Your task to perform on an android device: Clear the shopping cart on ebay.com. Search for "alienware aurora" on ebay.com, select the first entry, and add it to the cart. Image 0: 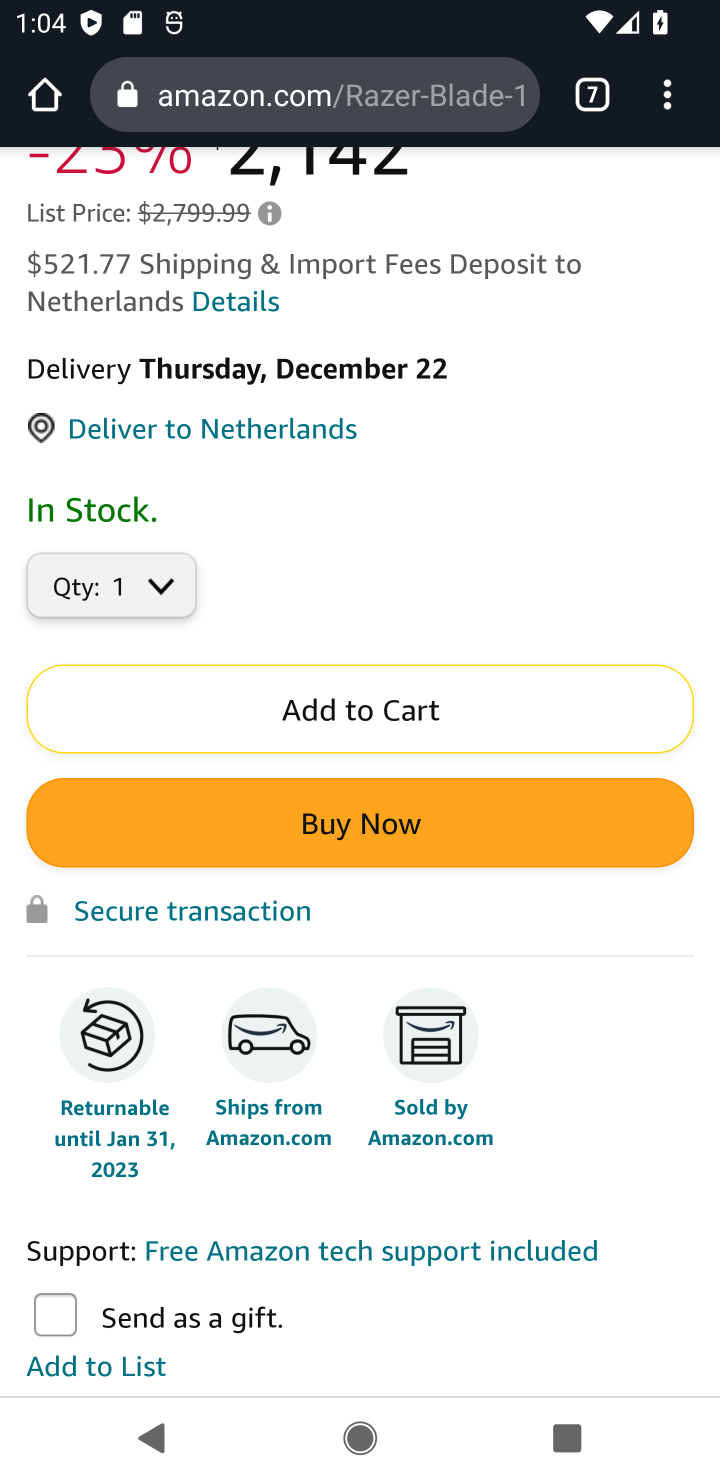
Step 0: press home button
Your task to perform on an android device: Clear the shopping cart on ebay.com. Search for "alienware aurora" on ebay.com, select the first entry, and add it to the cart. Image 1: 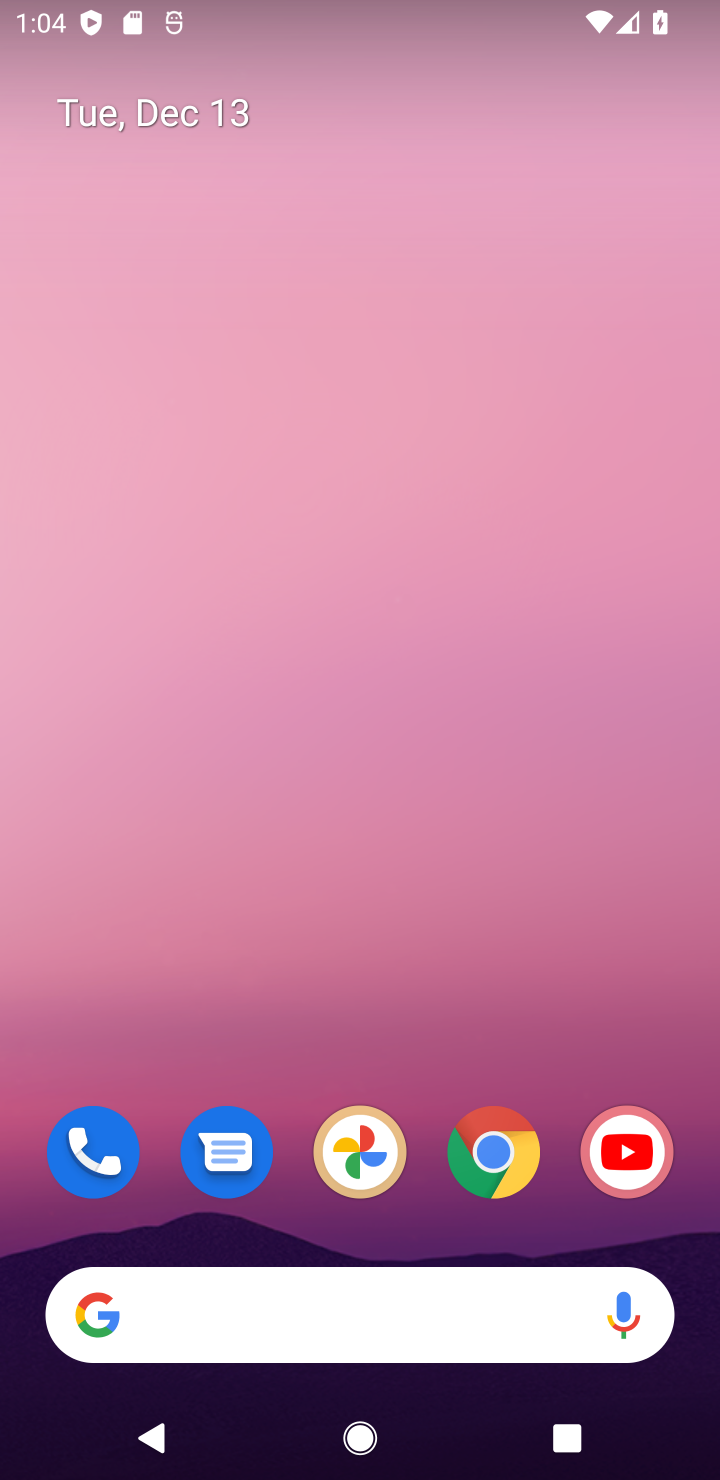
Step 1: drag from (293, 1316) to (356, 98)
Your task to perform on an android device: Clear the shopping cart on ebay.com. Search for "alienware aurora" on ebay.com, select the first entry, and add it to the cart. Image 2: 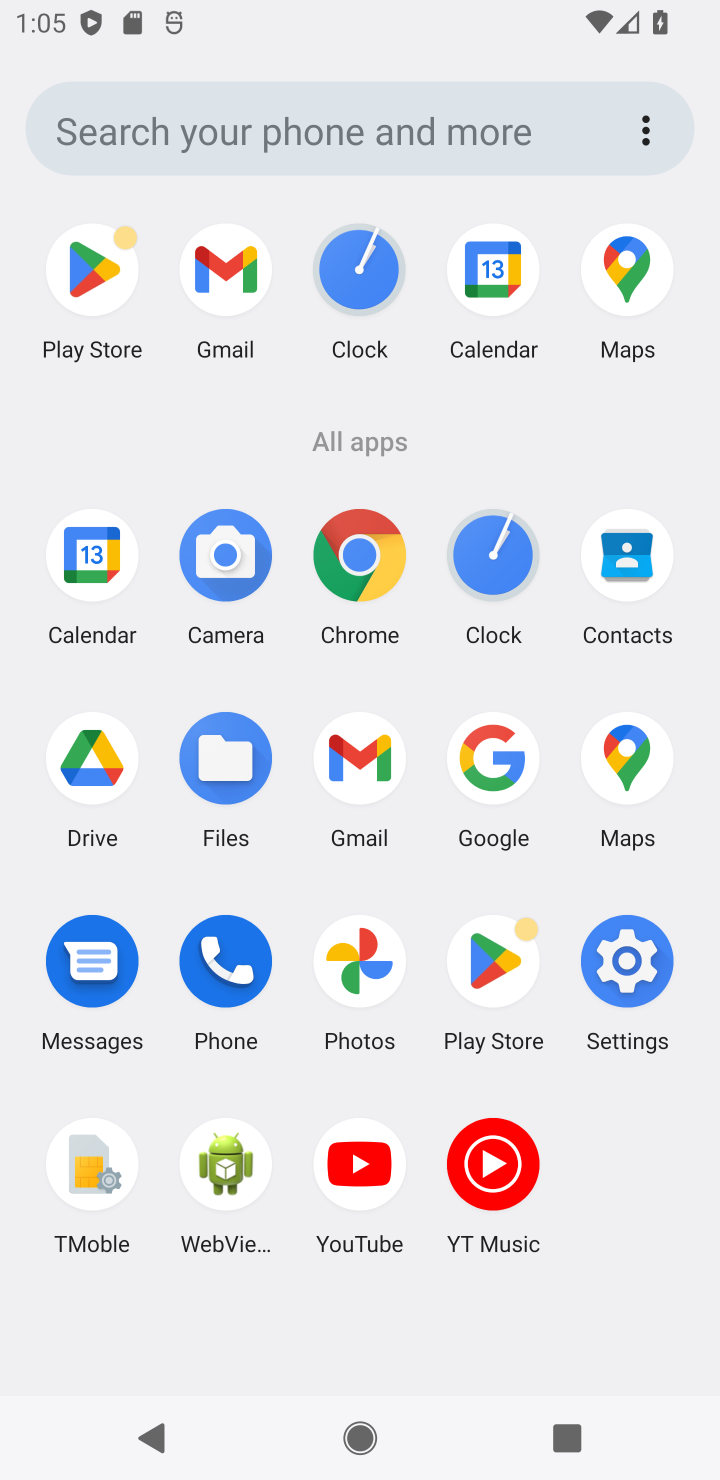
Step 2: click (484, 775)
Your task to perform on an android device: Clear the shopping cart on ebay.com. Search for "alienware aurora" on ebay.com, select the first entry, and add it to the cart. Image 3: 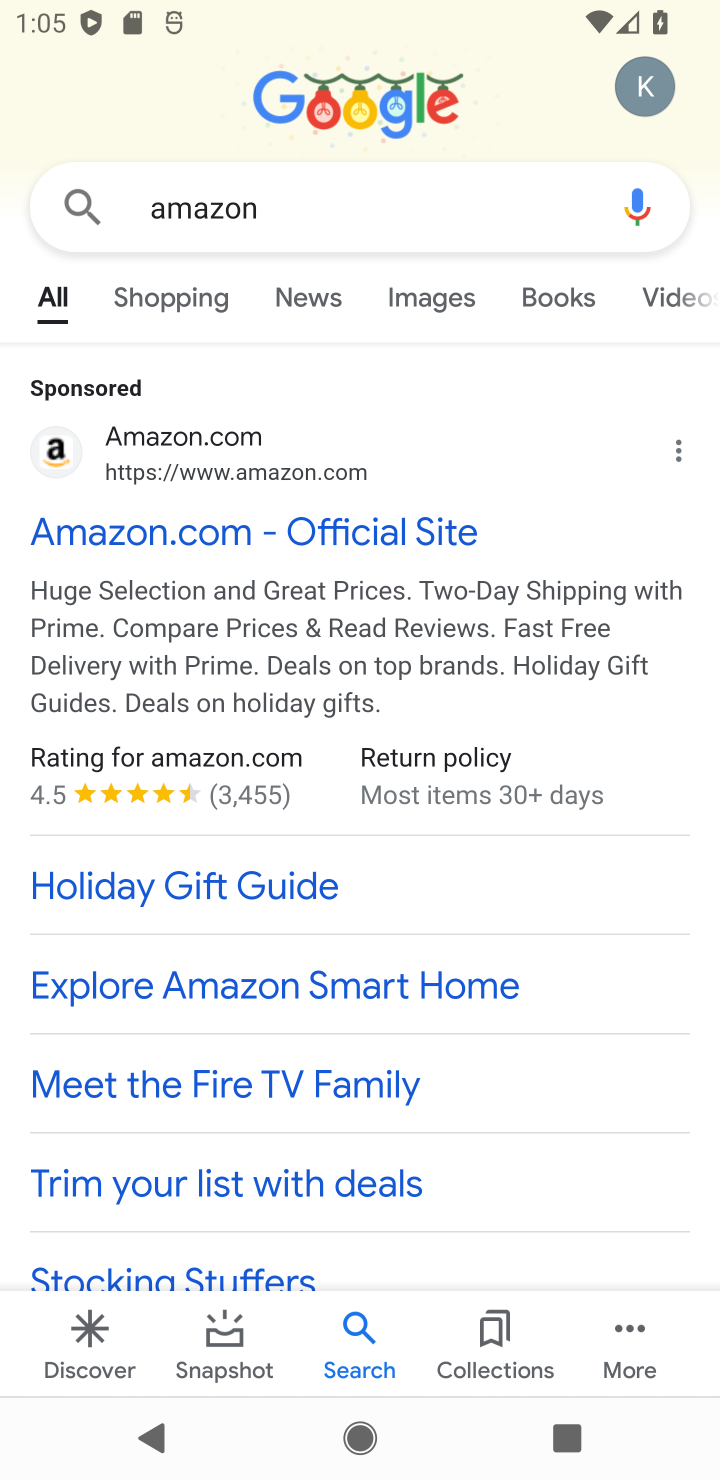
Step 3: click (197, 222)
Your task to perform on an android device: Clear the shopping cart on ebay.com. Search for "alienware aurora" on ebay.com, select the first entry, and add it to the cart. Image 4: 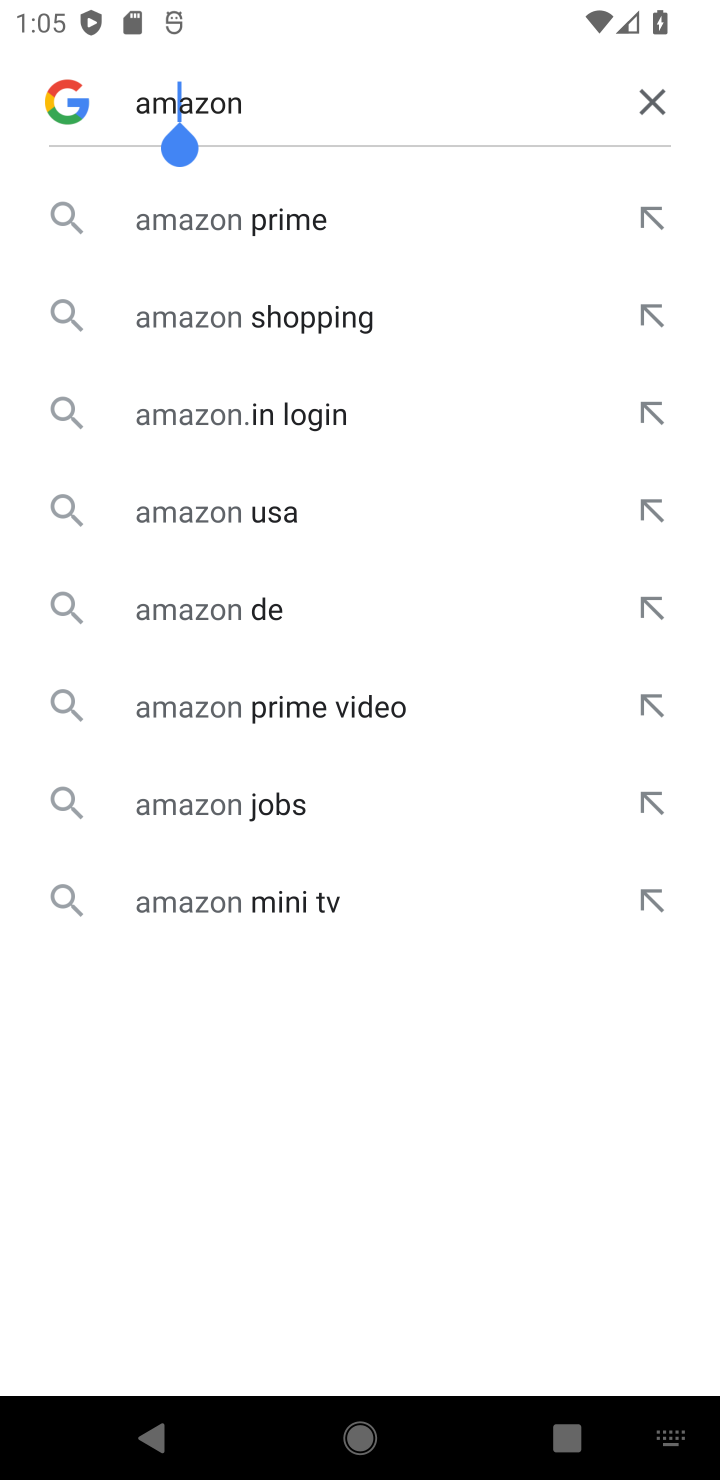
Step 4: click (660, 103)
Your task to perform on an android device: Clear the shopping cart on ebay.com. Search for "alienware aurora" on ebay.com, select the first entry, and add it to the cart. Image 5: 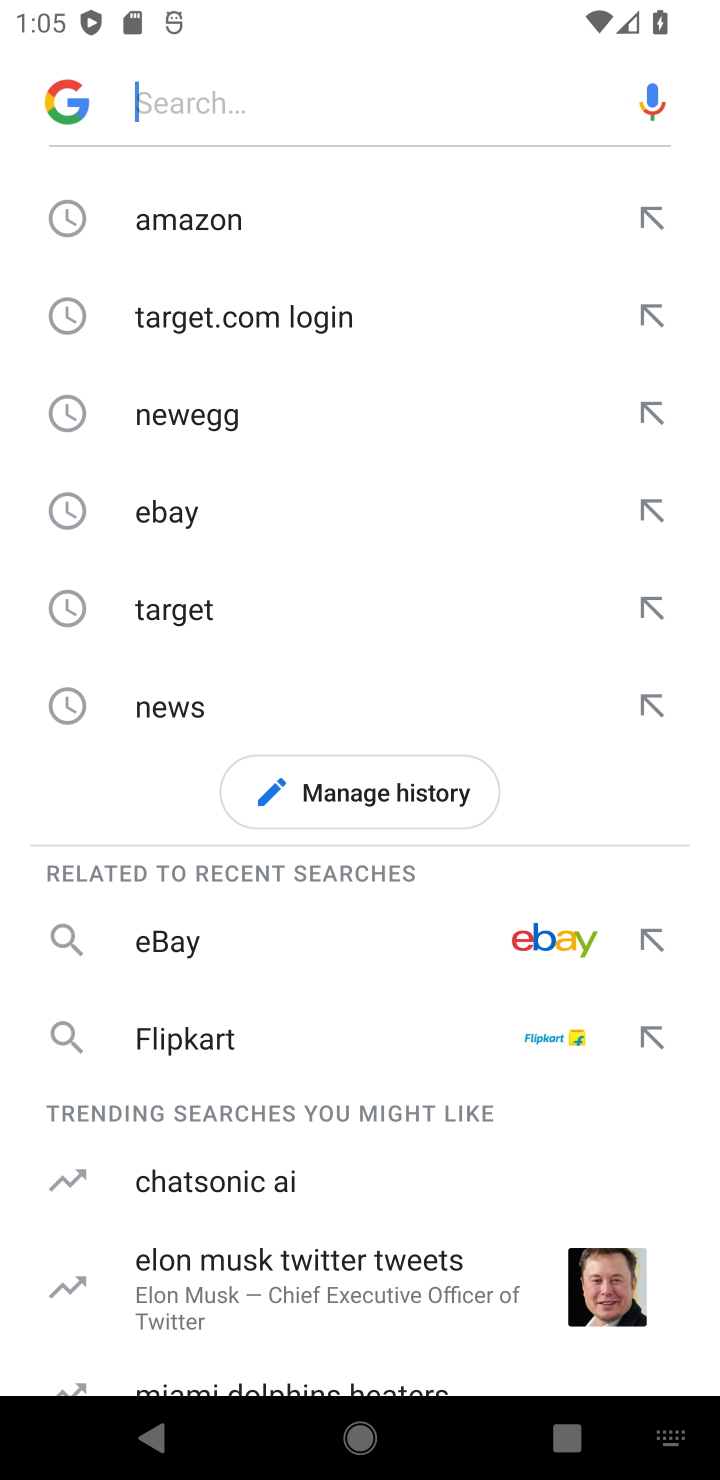
Step 5: click (160, 503)
Your task to perform on an android device: Clear the shopping cart on ebay.com. Search for "alienware aurora" on ebay.com, select the first entry, and add it to the cart. Image 6: 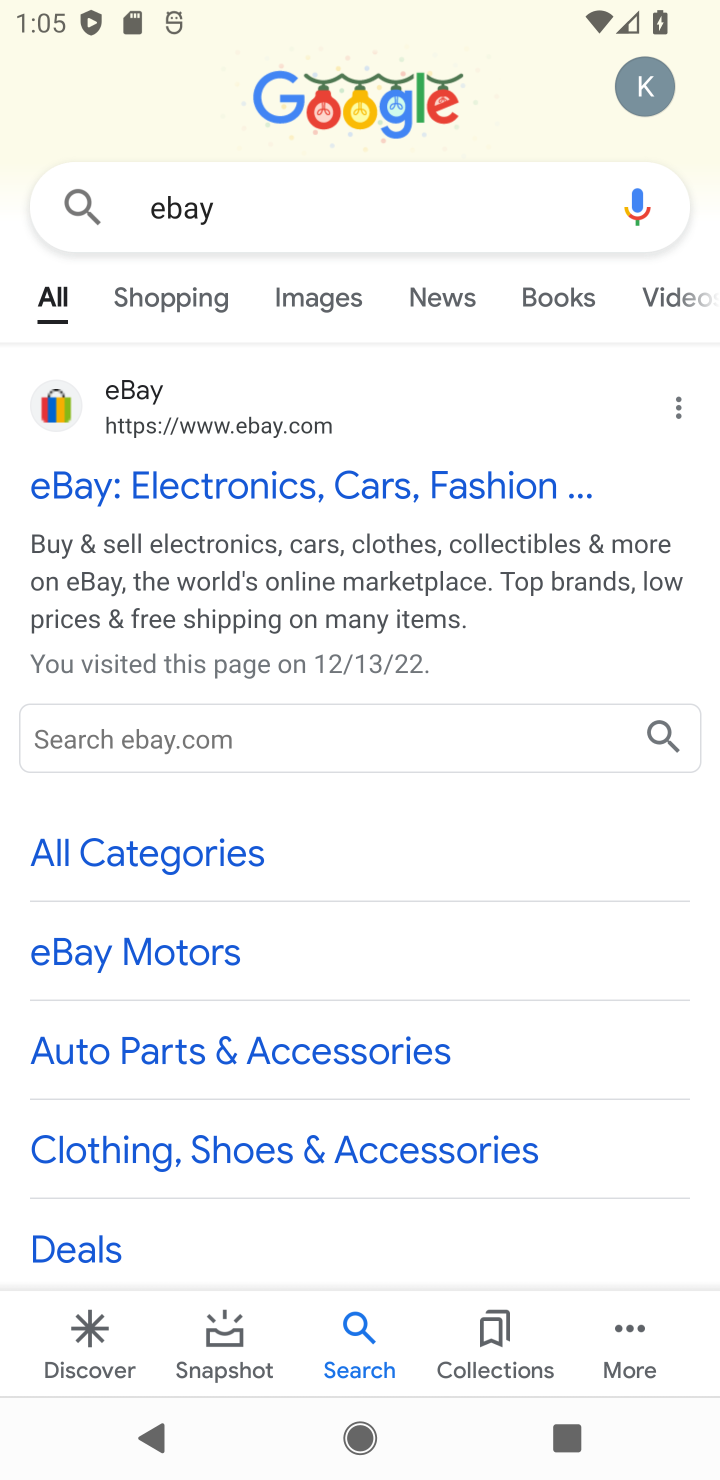
Step 6: click (194, 489)
Your task to perform on an android device: Clear the shopping cart on ebay.com. Search for "alienware aurora" on ebay.com, select the first entry, and add it to the cart. Image 7: 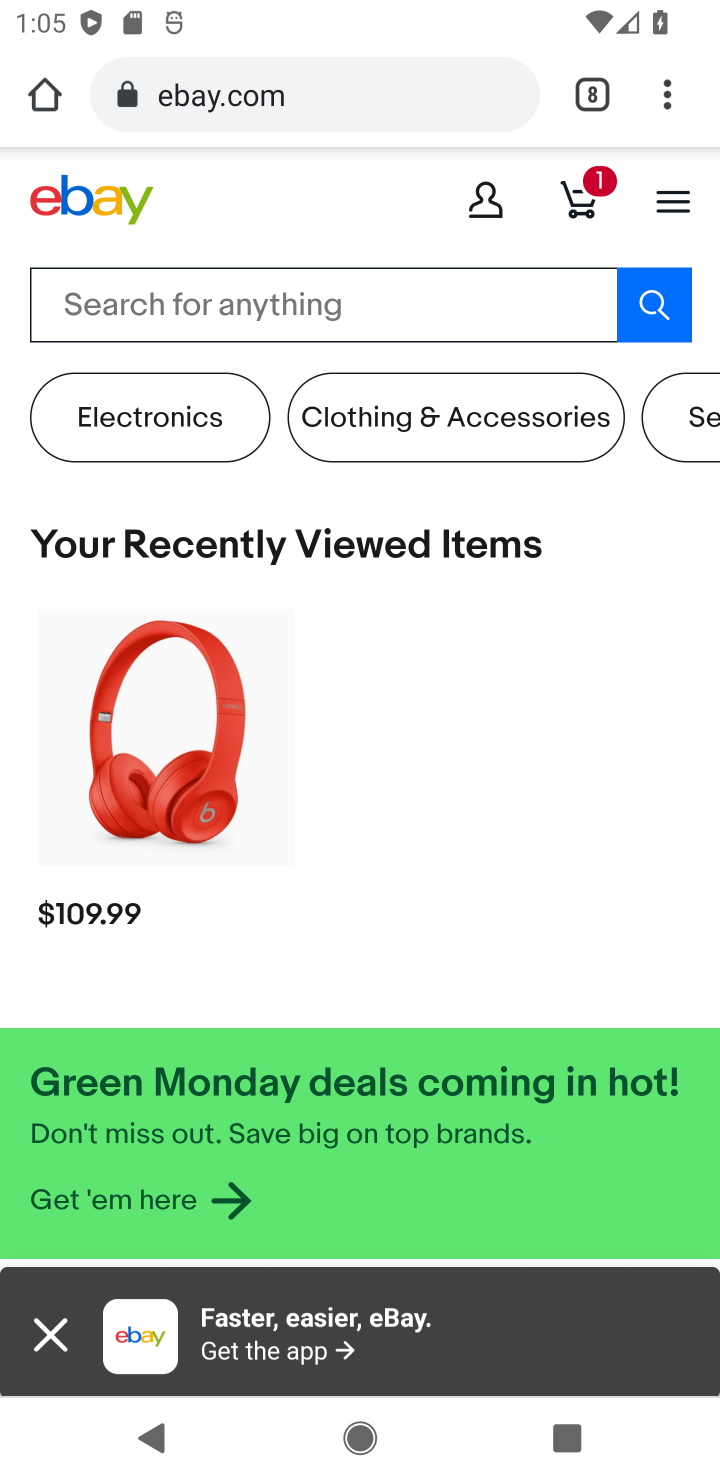
Step 7: click (307, 296)
Your task to perform on an android device: Clear the shopping cart on ebay.com. Search for "alienware aurora" on ebay.com, select the first entry, and add it to the cart. Image 8: 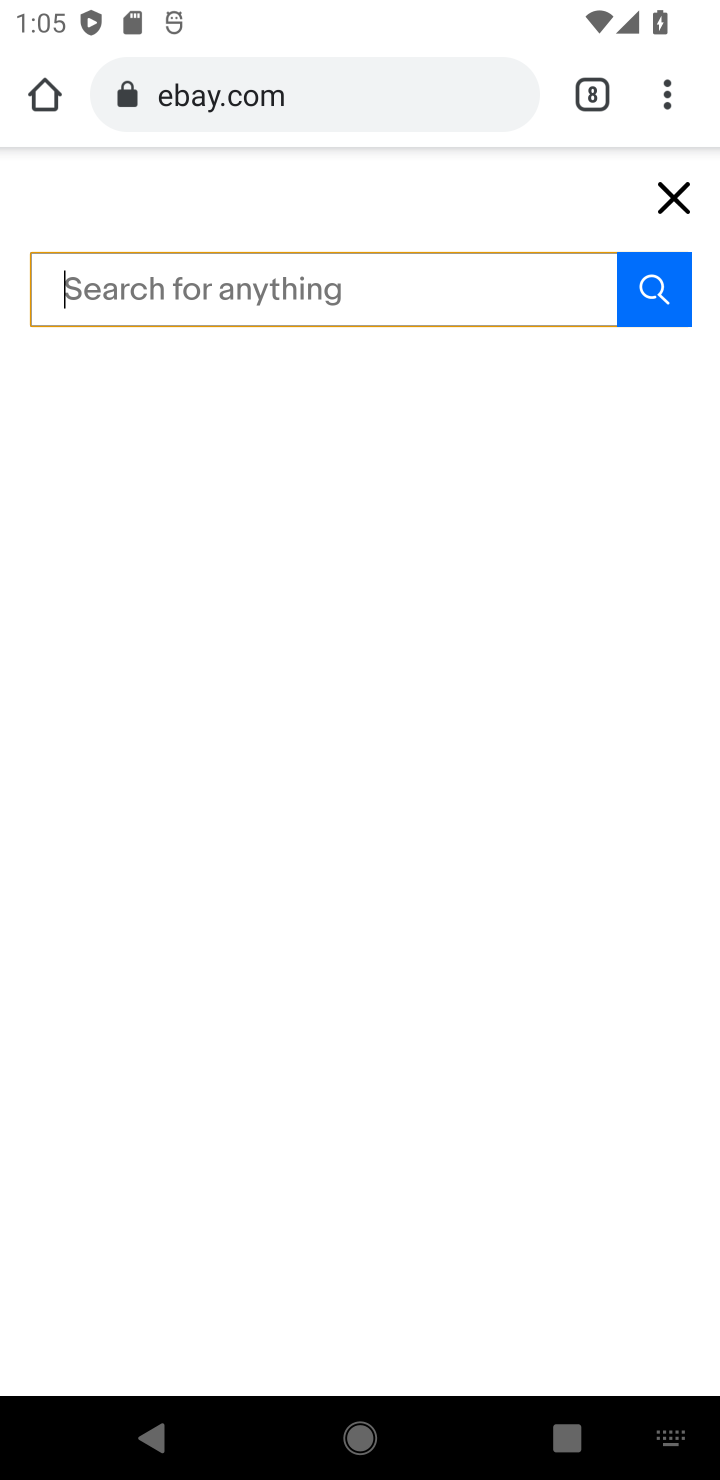
Step 8: type "alienware aurora"
Your task to perform on an android device: Clear the shopping cart on ebay.com. Search for "alienware aurora" on ebay.com, select the first entry, and add it to the cart. Image 9: 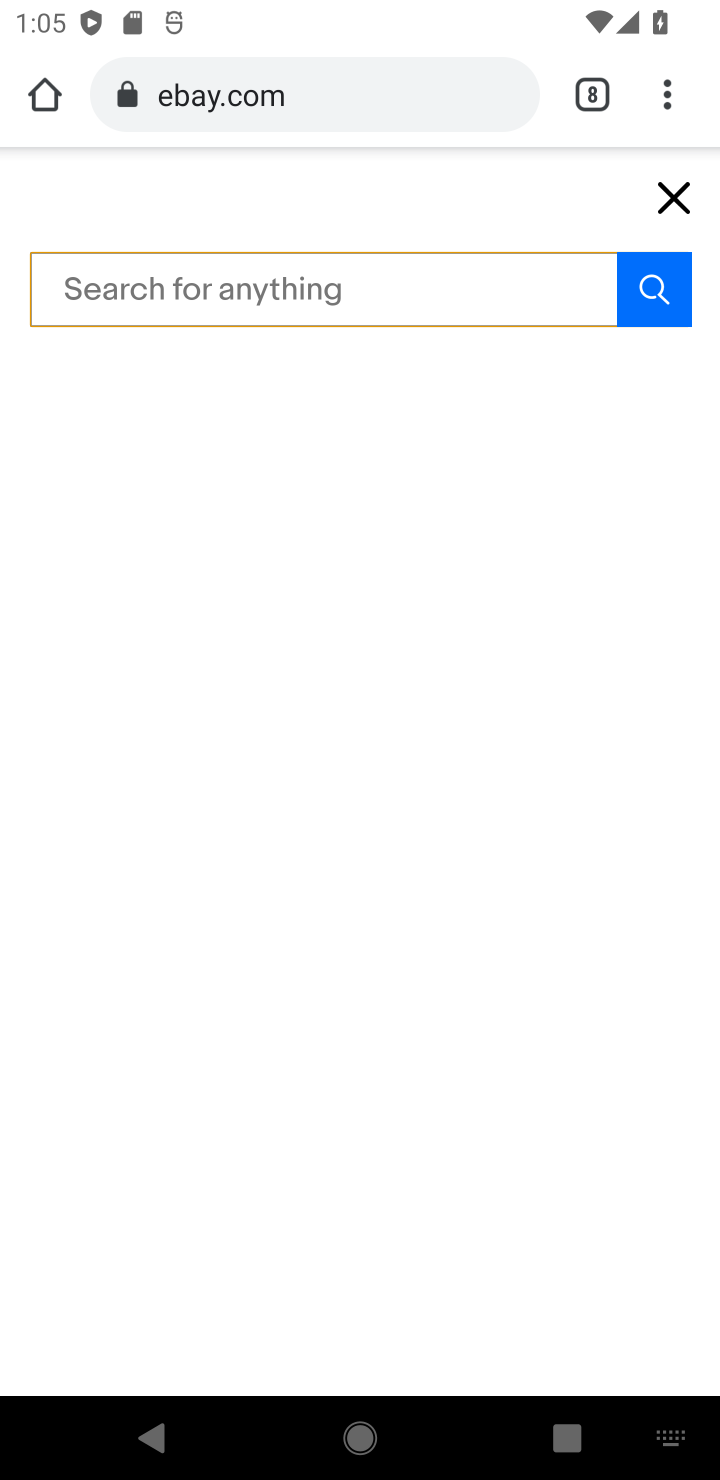
Step 9: click (648, 277)
Your task to perform on an android device: Clear the shopping cart on ebay.com. Search for "alienware aurora" on ebay.com, select the first entry, and add it to the cart. Image 10: 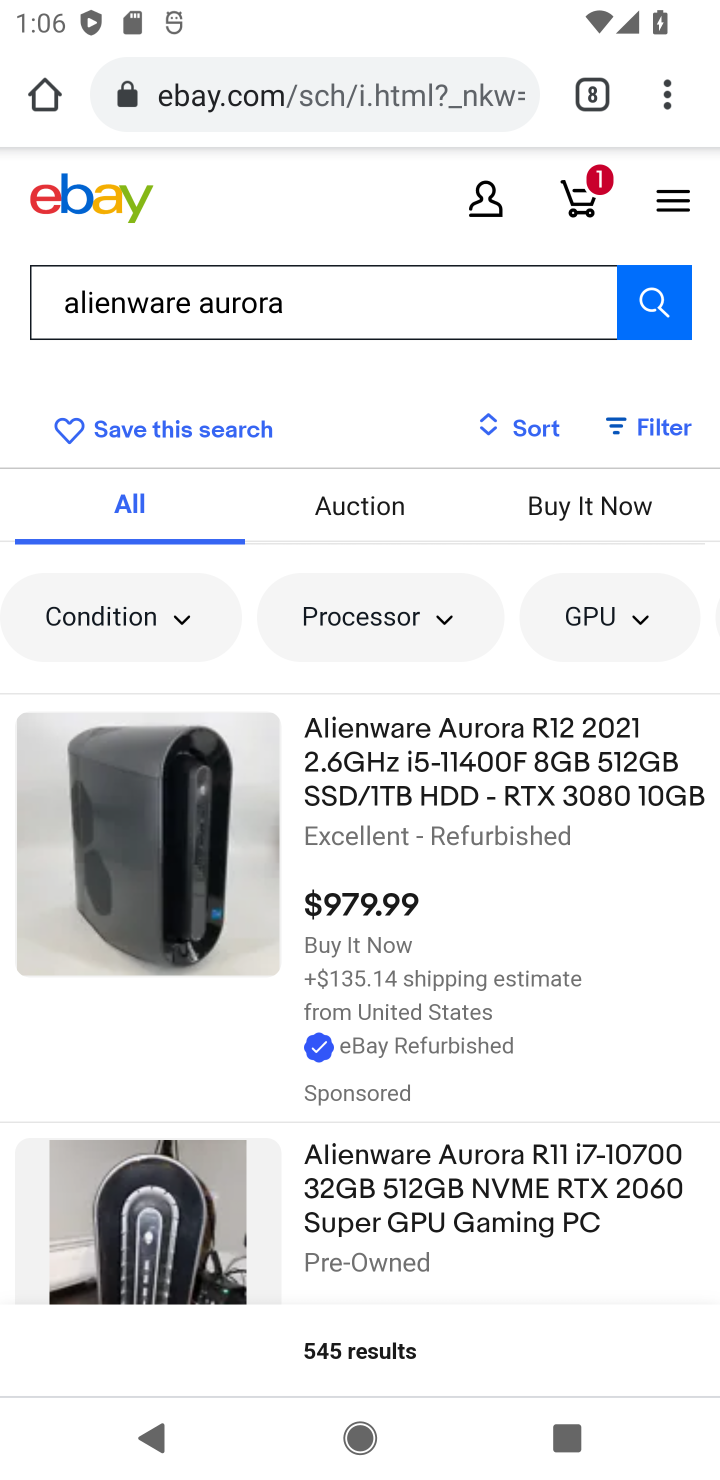
Step 10: click (416, 781)
Your task to perform on an android device: Clear the shopping cart on ebay.com. Search for "alienware aurora" on ebay.com, select the first entry, and add it to the cart. Image 11: 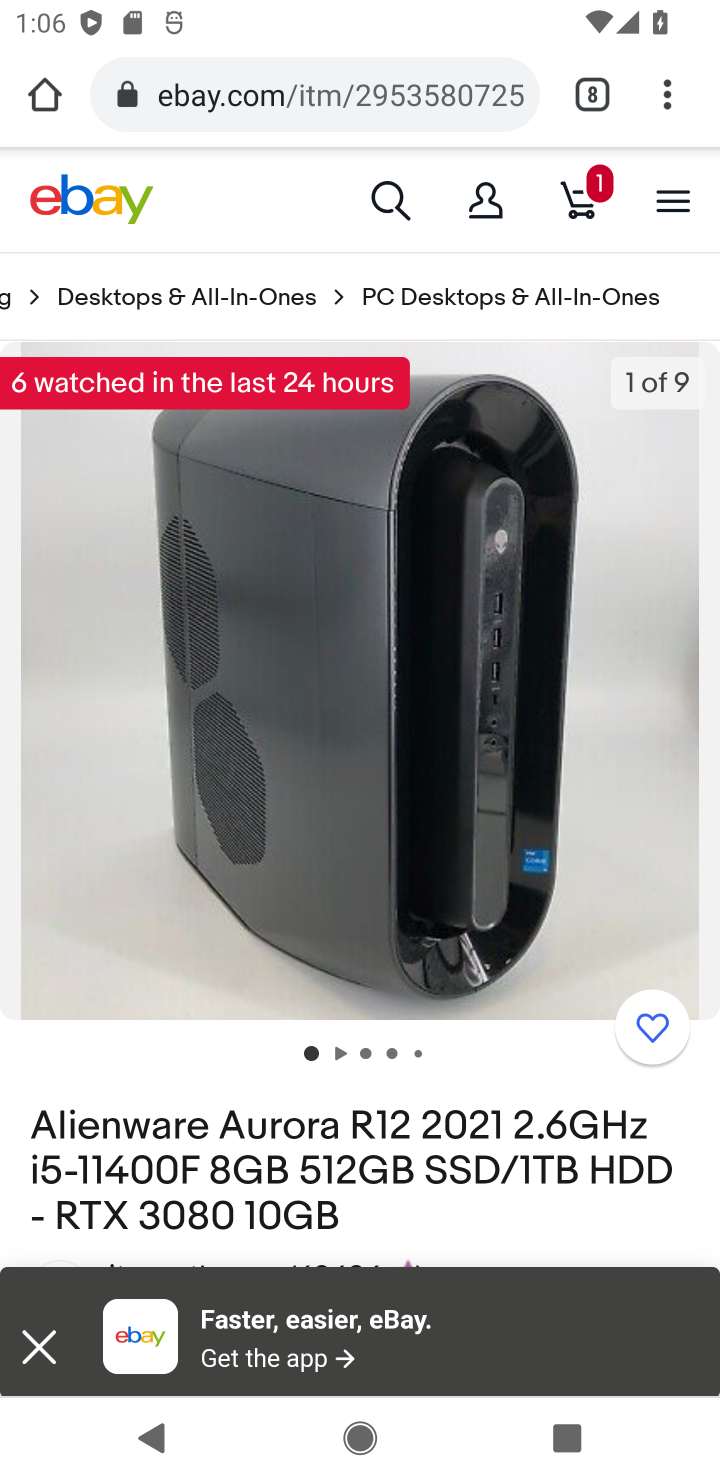
Step 11: drag from (420, 1263) to (431, 609)
Your task to perform on an android device: Clear the shopping cart on ebay.com. Search for "alienware aurora" on ebay.com, select the first entry, and add it to the cart. Image 12: 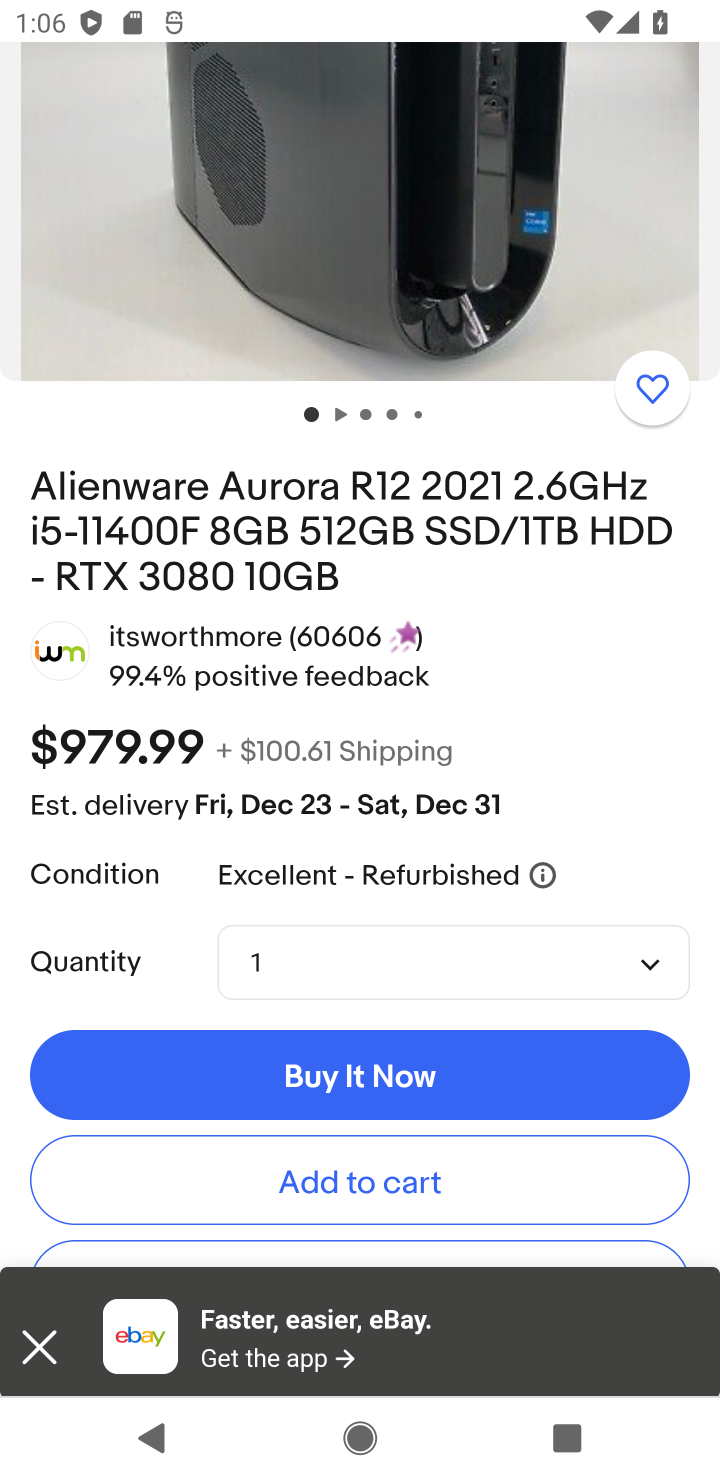
Step 12: click (360, 1184)
Your task to perform on an android device: Clear the shopping cart on ebay.com. Search for "alienware aurora" on ebay.com, select the first entry, and add it to the cart. Image 13: 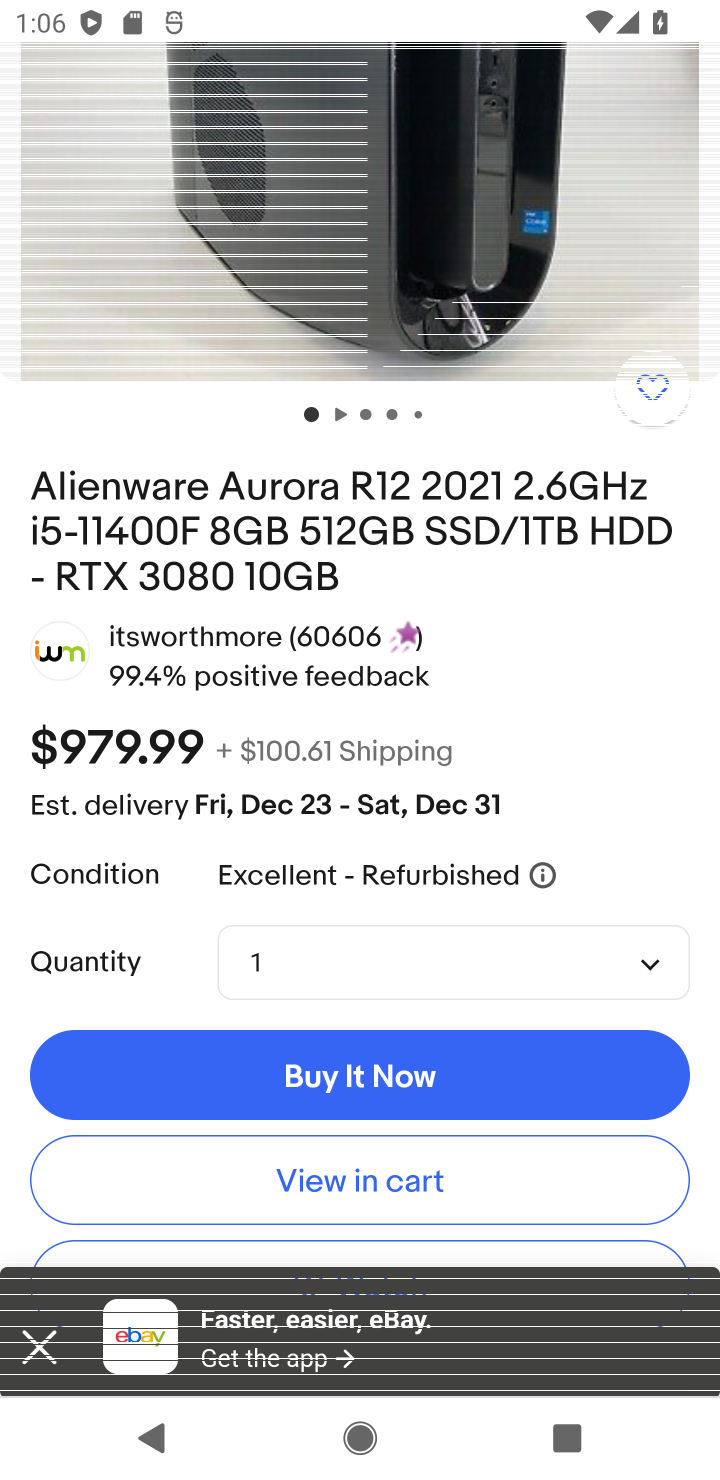
Step 13: click (360, 1184)
Your task to perform on an android device: Clear the shopping cart on ebay.com. Search for "alienware aurora" on ebay.com, select the first entry, and add it to the cart. Image 14: 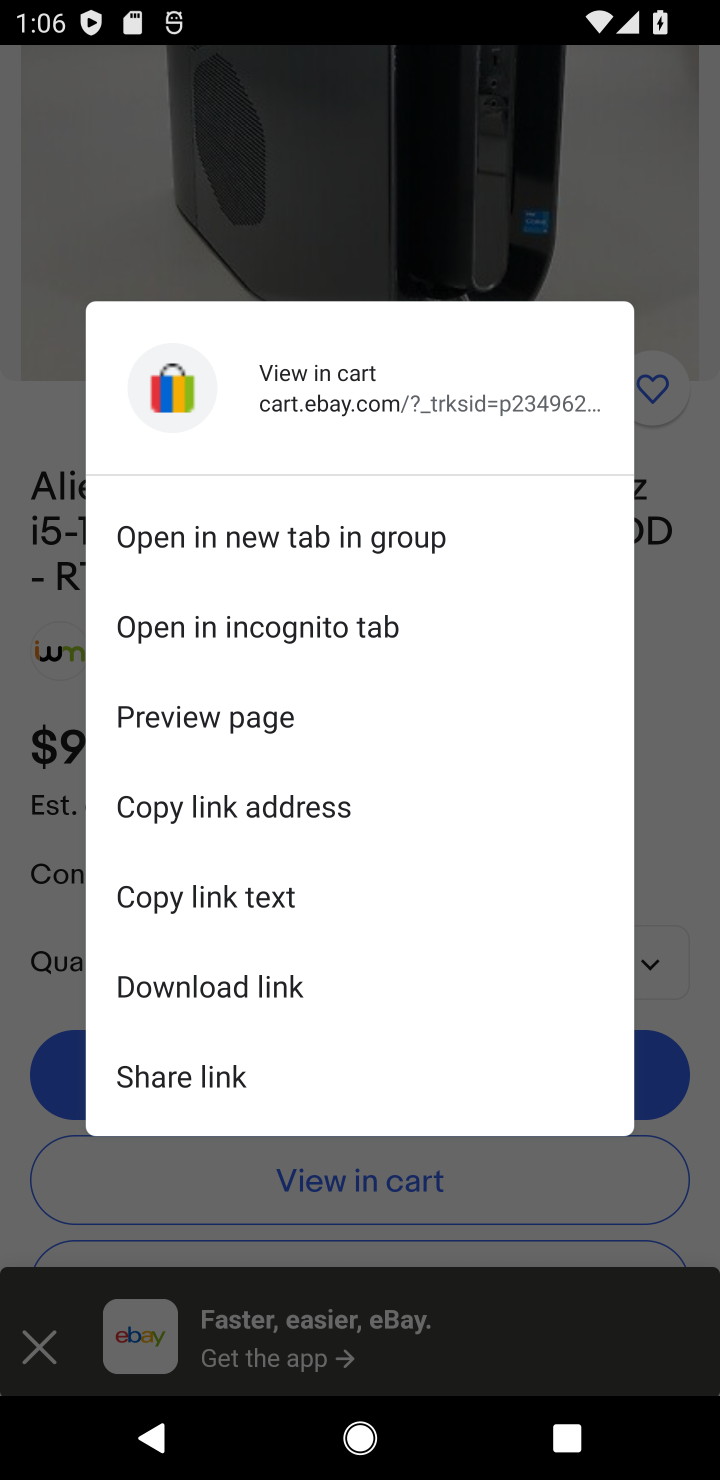
Step 14: click (655, 860)
Your task to perform on an android device: Clear the shopping cart on ebay.com. Search for "alienware aurora" on ebay.com, select the first entry, and add it to the cart. Image 15: 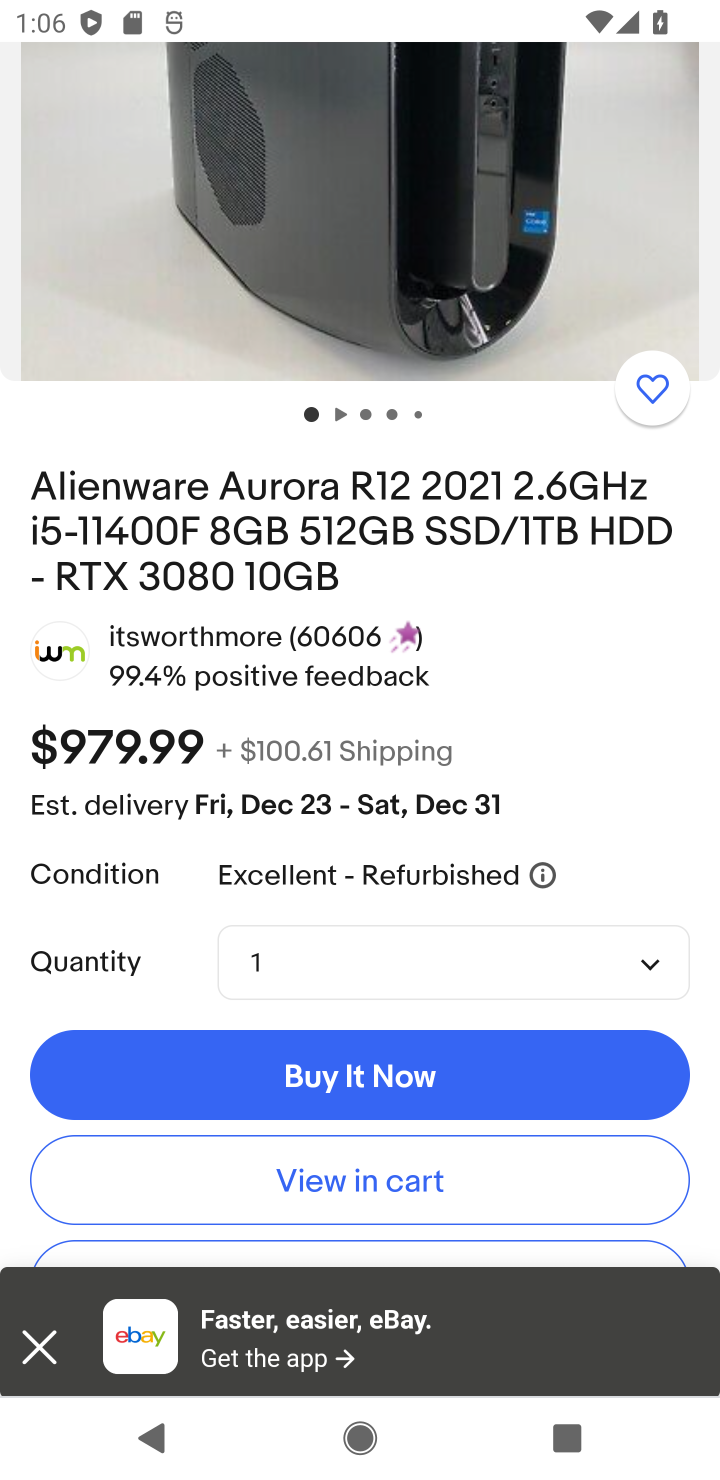
Step 15: click (338, 1184)
Your task to perform on an android device: Clear the shopping cart on ebay.com. Search for "alienware aurora" on ebay.com, select the first entry, and add it to the cart. Image 16: 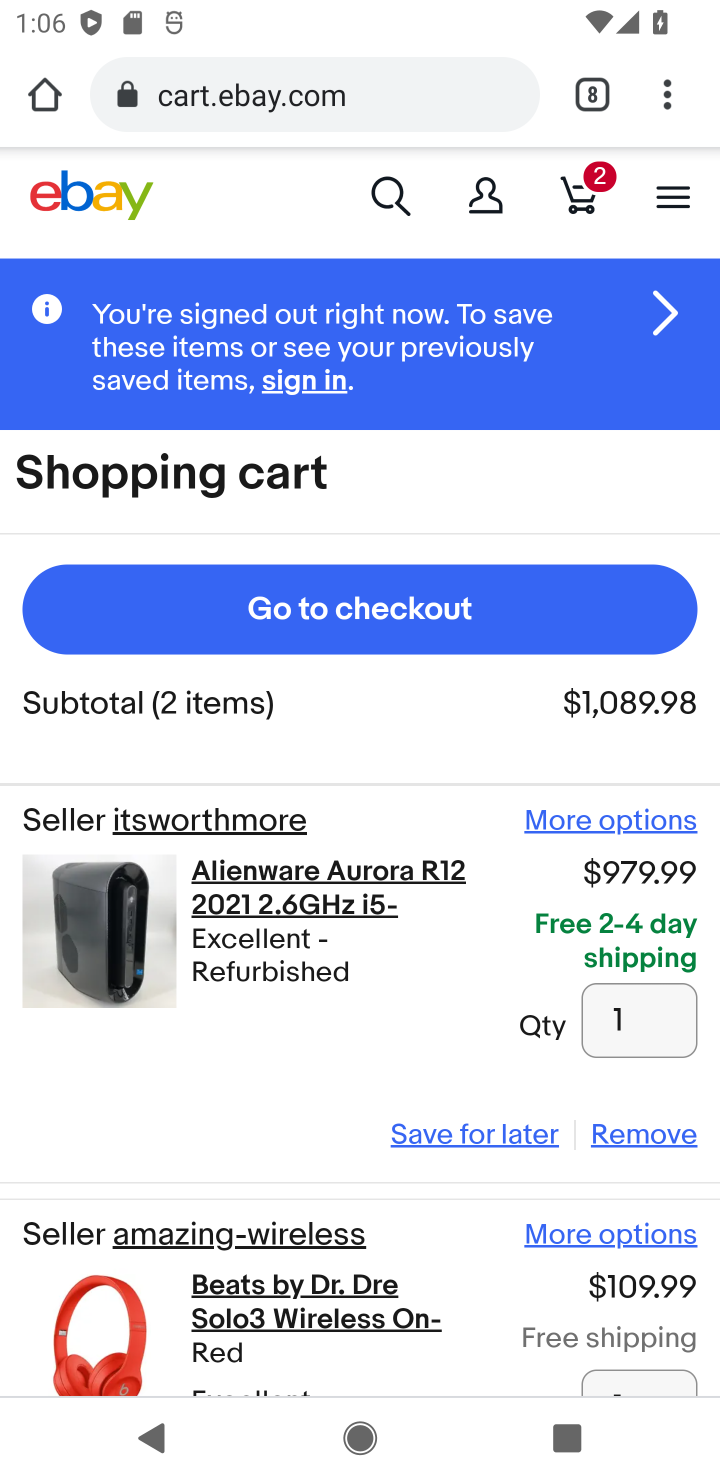
Step 16: click (300, 611)
Your task to perform on an android device: Clear the shopping cart on ebay.com. Search for "alienware aurora" on ebay.com, select the first entry, and add it to the cart. Image 17: 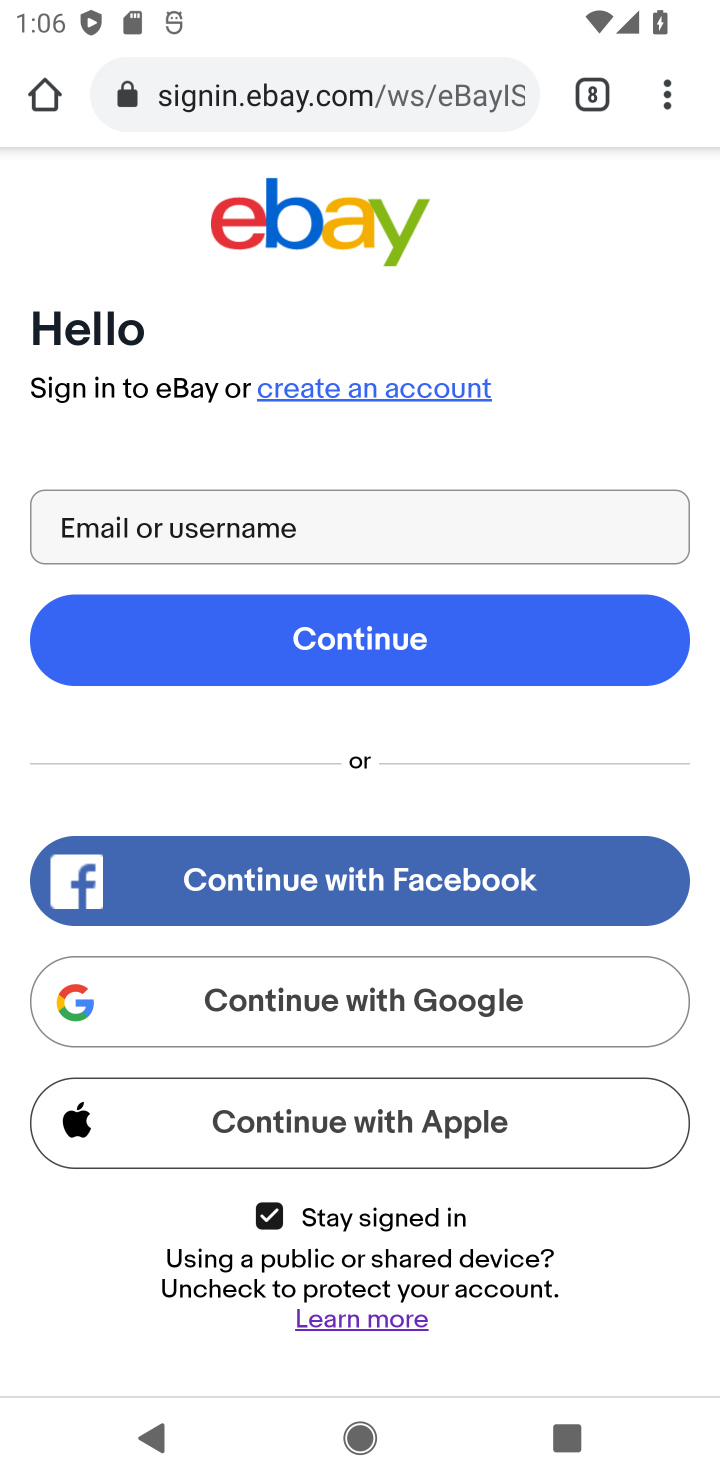
Step 17: task complete